Your task to perform on an android device: turn off picture-in-picture Image 0: 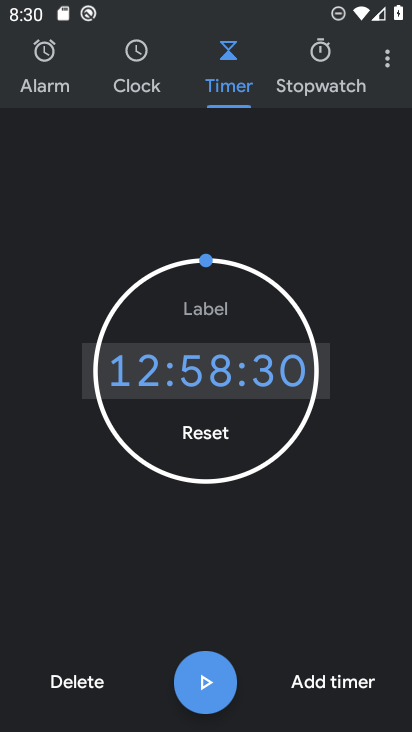
Step 0: press home button
Your task to perform on an android device: turn off picture-in-picture Image 1: 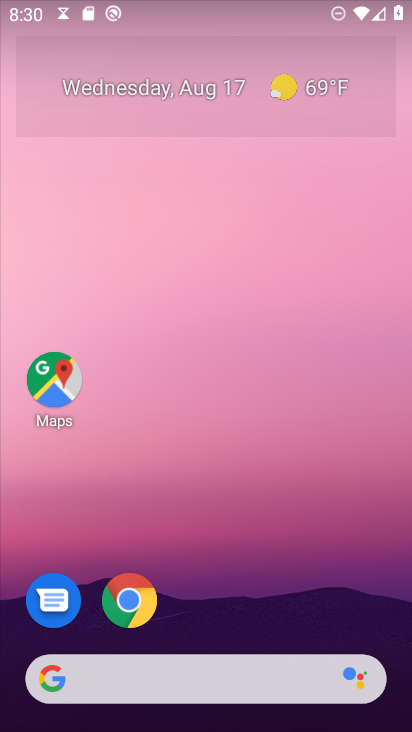
Step 1: click (130, 591)
Your task to perform on an android device: turn off picture-in-picture Image 2: 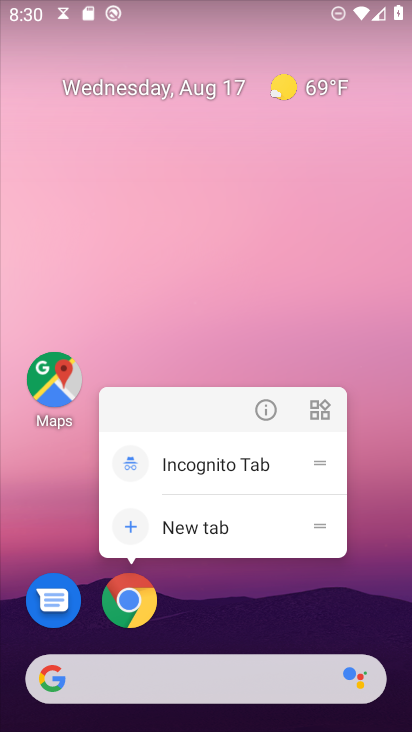
Step 2: click (272, 409)
Your task to perform on an android device: turn off picture-in-picture Image 3: 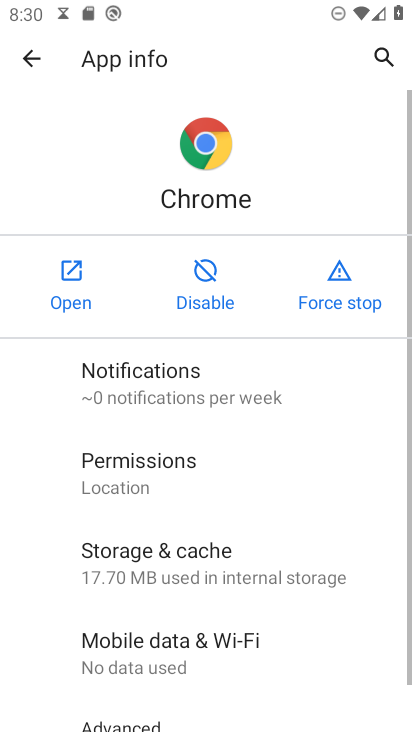
Step 3: drag from (271, 665) to (221, 121)
Your task to perform on an android device: turn off picture-in-picture Image 4: 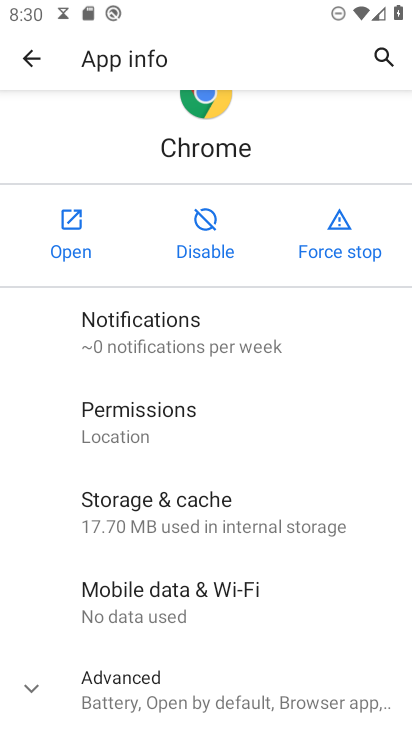
Step 4: click (27, 685)
Your task to perform on an android device: turn off picture-in-picture Image 5: 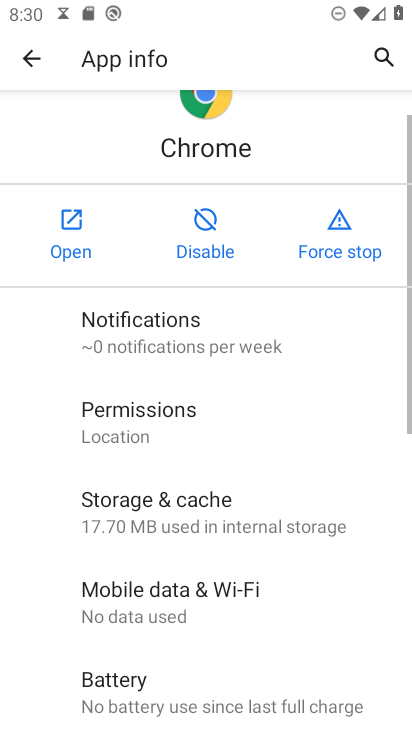
Step 5: drag from (257, 632) to (285, 165)
Your task to perform on an android device: turn off picture-in-picture Image 6: 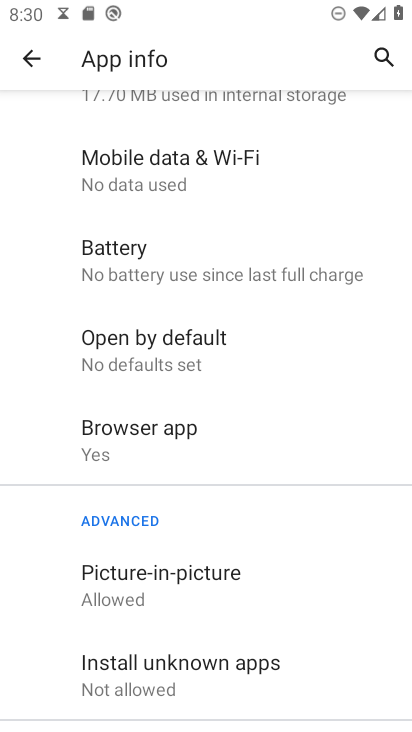
Step 6: click (214, 582)
Your task to perform on an android device: turn off picture-in-picture Image 7: 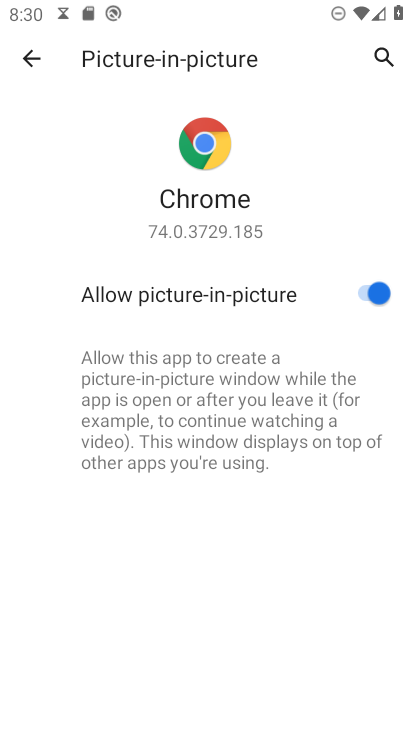
Step 7: click (376, 291)
Your task to perform on an android device: turn off picture-in-picture Image 8: 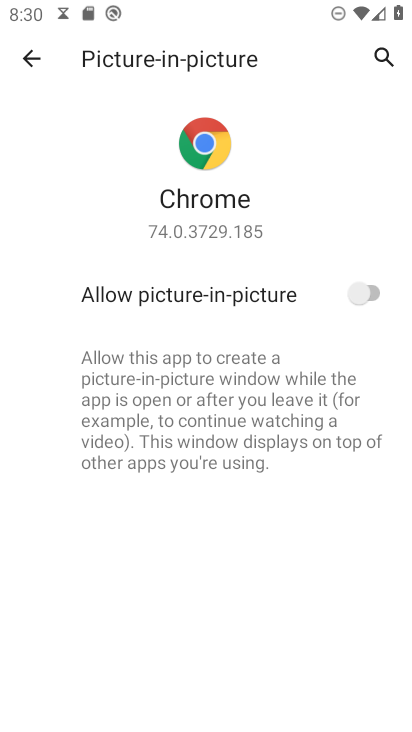
Step 8: task complete